Your task to perform on an android device: Open Youtube and go to the subscriptions tab Image 0: 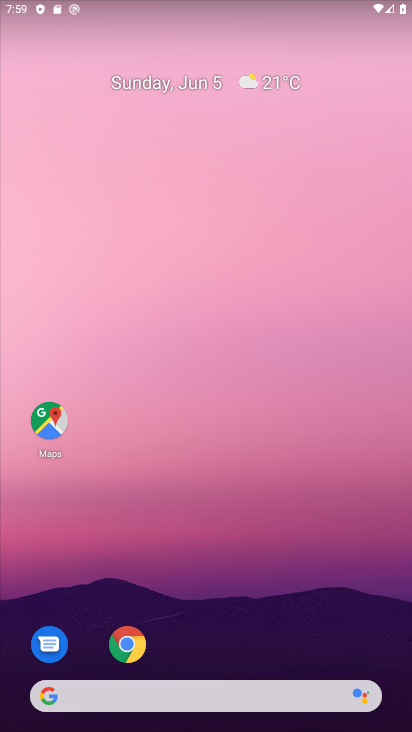
Step 0: task complete